Your task to perform on an android device: Open Android settings Image 0: 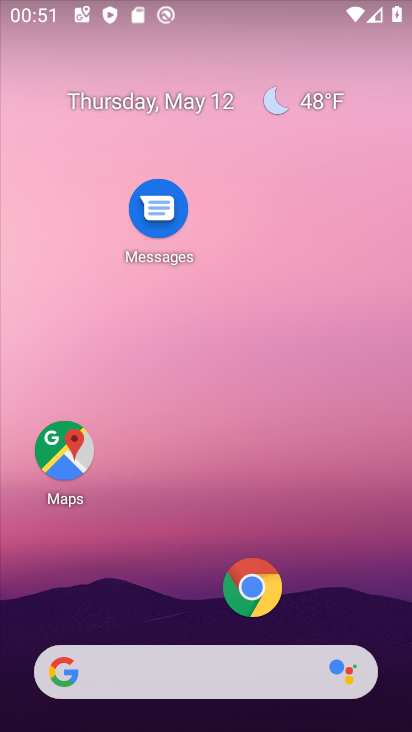
Step 0: drag from (215, 634) to (190, 104)
Your task to perform on an android device: Open Android settings Image 1: 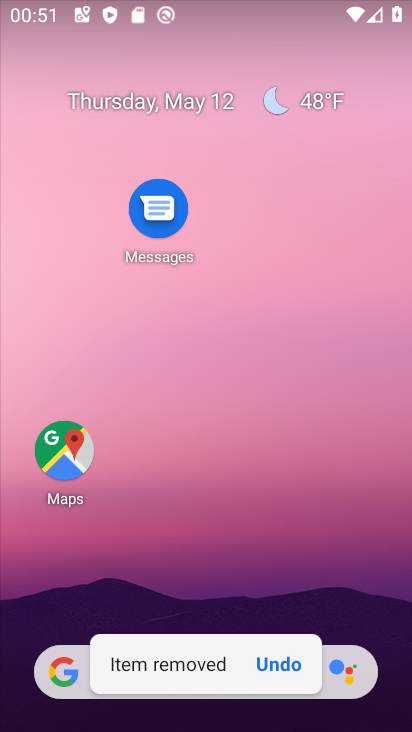
Step 1: drag from (183, 606) to (166, 43)
Your task to perform on an android device: Open Android settings Image 2: 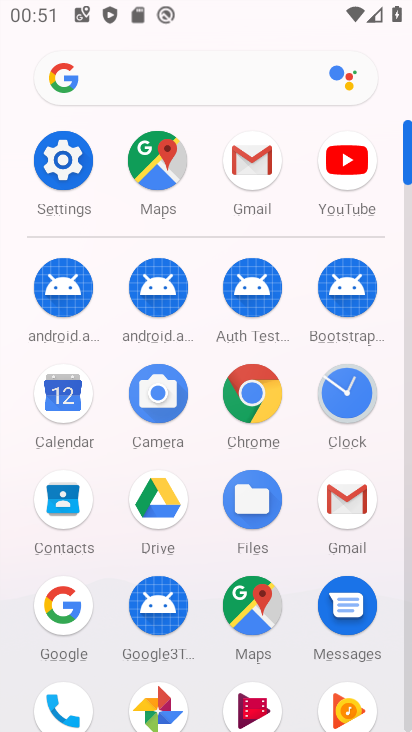
Step 2: click (60, 168)
Your task to perform on an android device: Open Android settings Image 3: 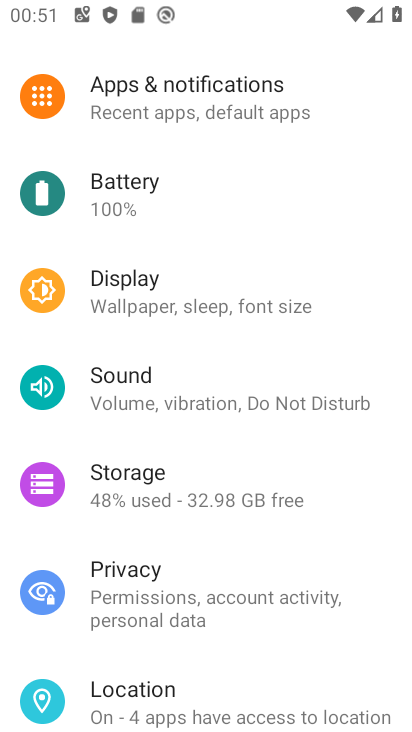
Step 3: drag from (230, 107) to (105, 638)
Your task to perform on an android device: Open Android settings Image 4: 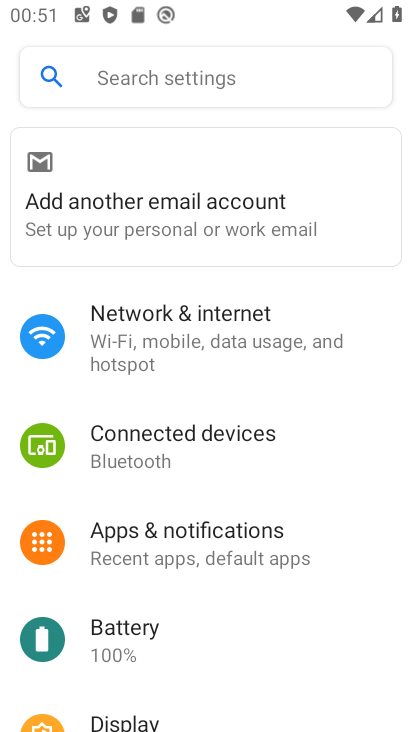
Step 4: click (113, 319)
Your task to perform on an android device: Open Android settings Image 5: 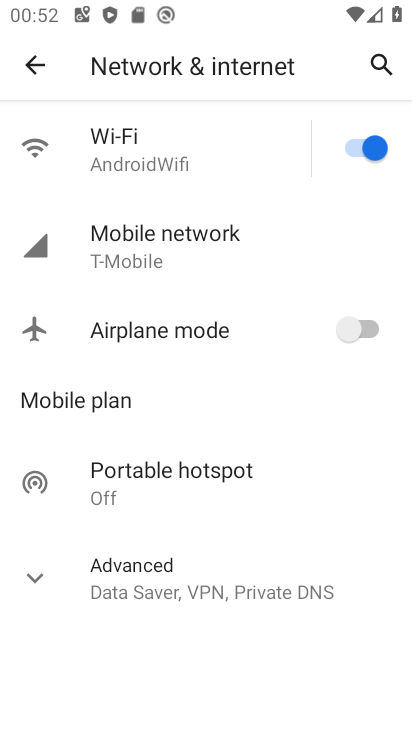
Step 5: task complete